Your task to perform on an android device: change timer sound Image 0: 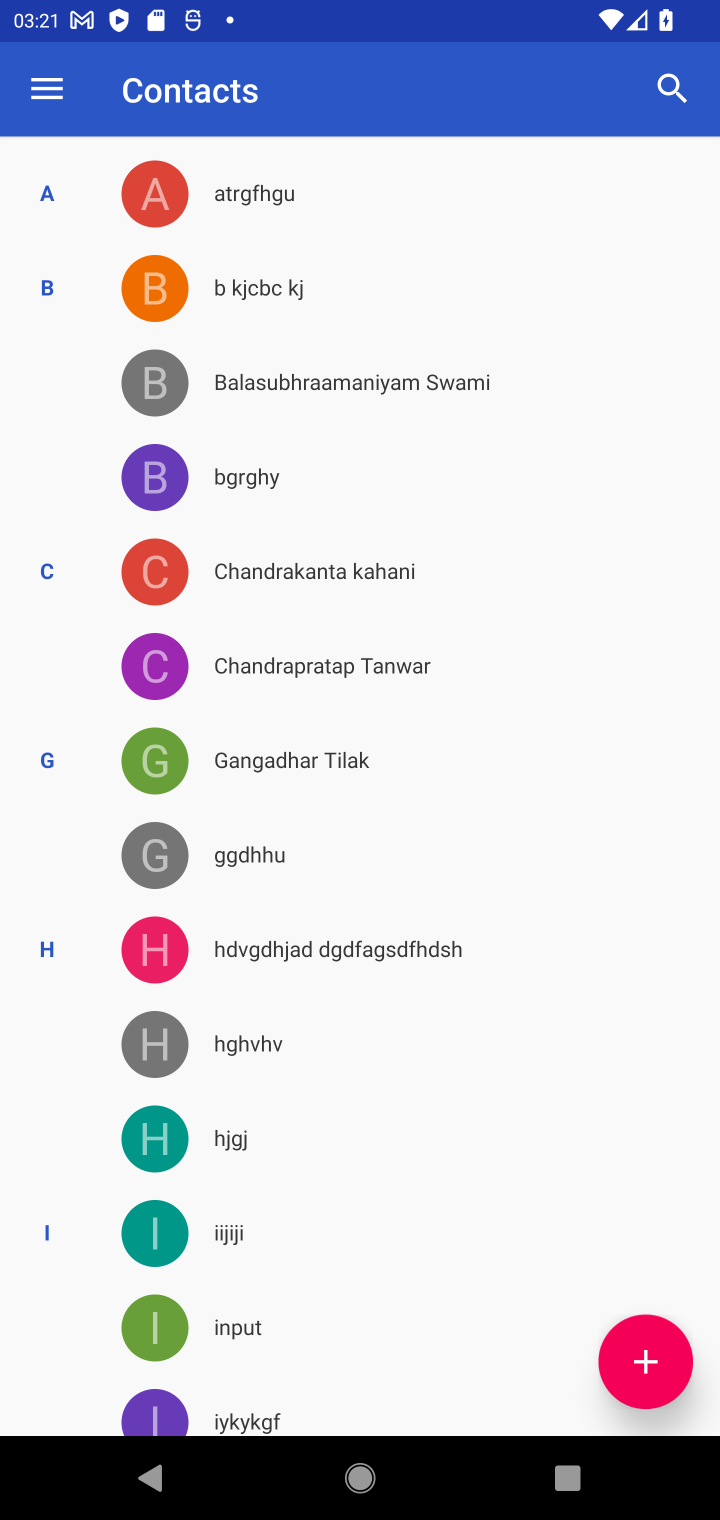
Step 0: press home button
Your task to perform on an android device: change timer sound Image 1: 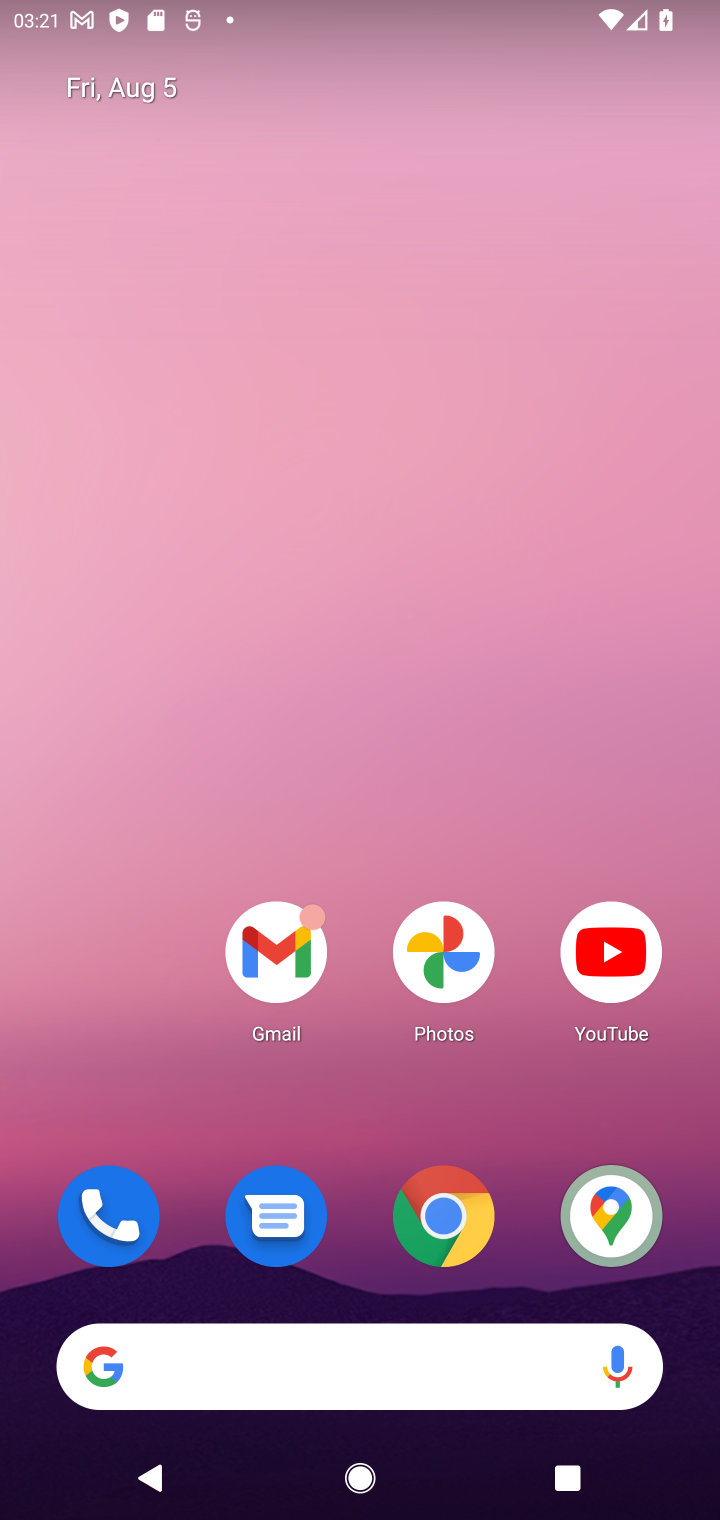
Step 1: drag from (375, 1046) to (627, 127)
Your task to perform on an android device: change timer sound Image 2: 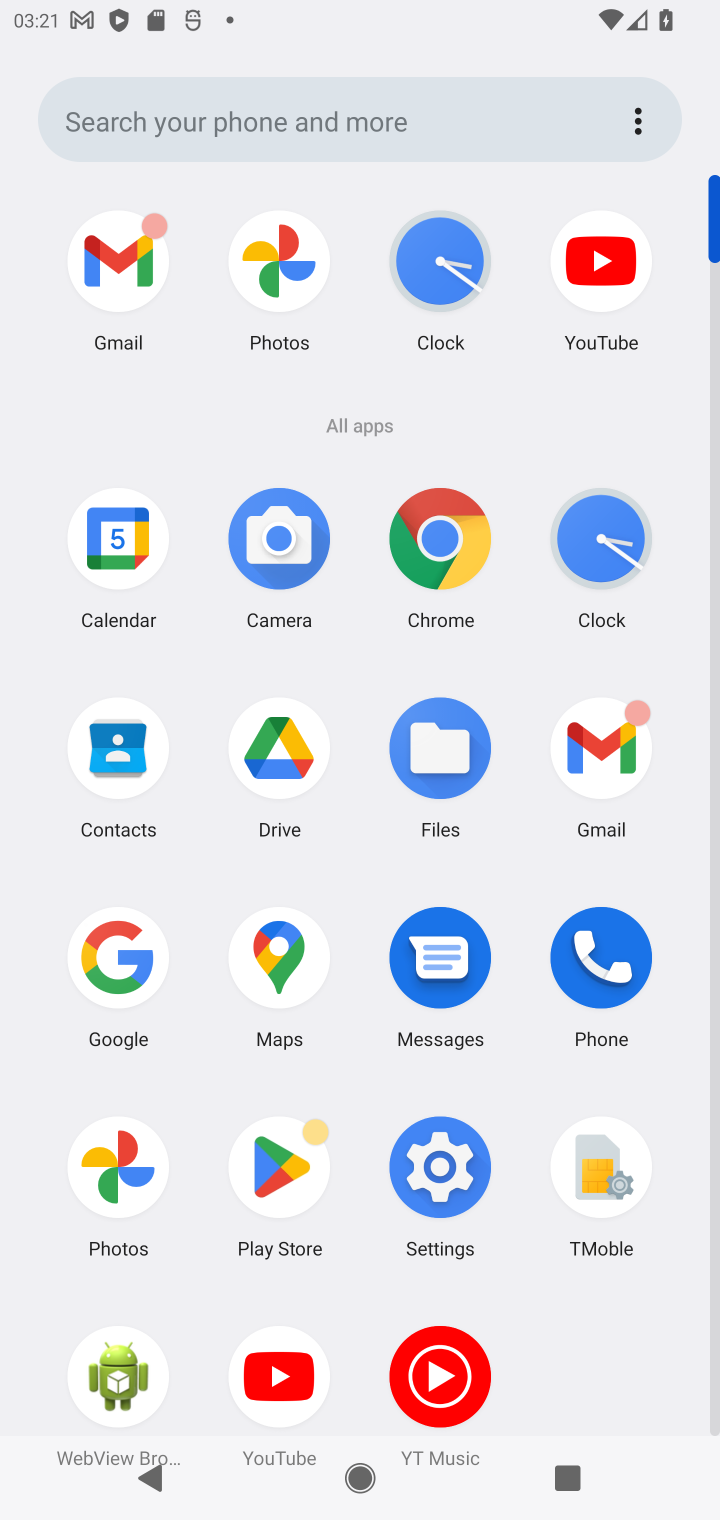
Step 2: click (625, 544)
Your task to perform on an android device: change timer sound Image 3: 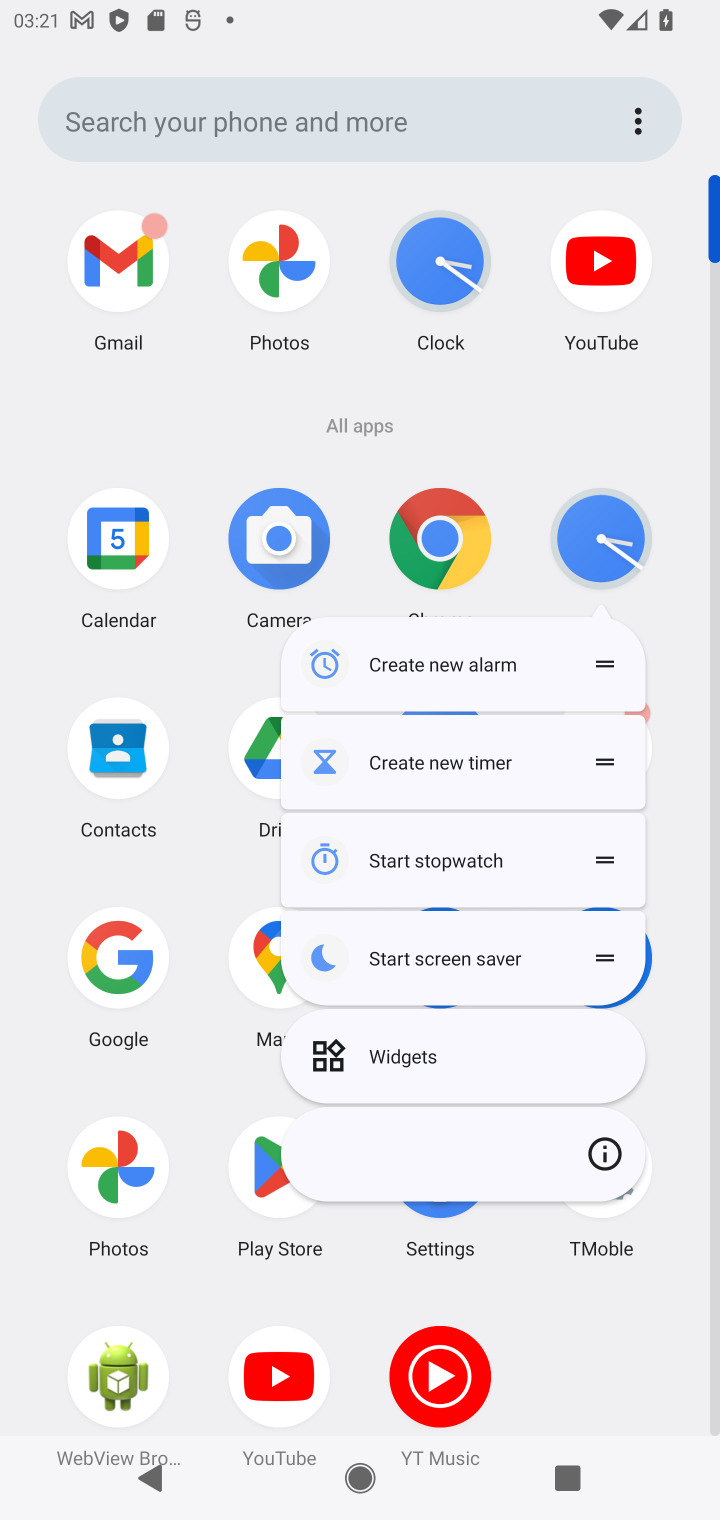
Step 3: click (625, 544)
Your task to perform on an android device: change timer sound Image 4: 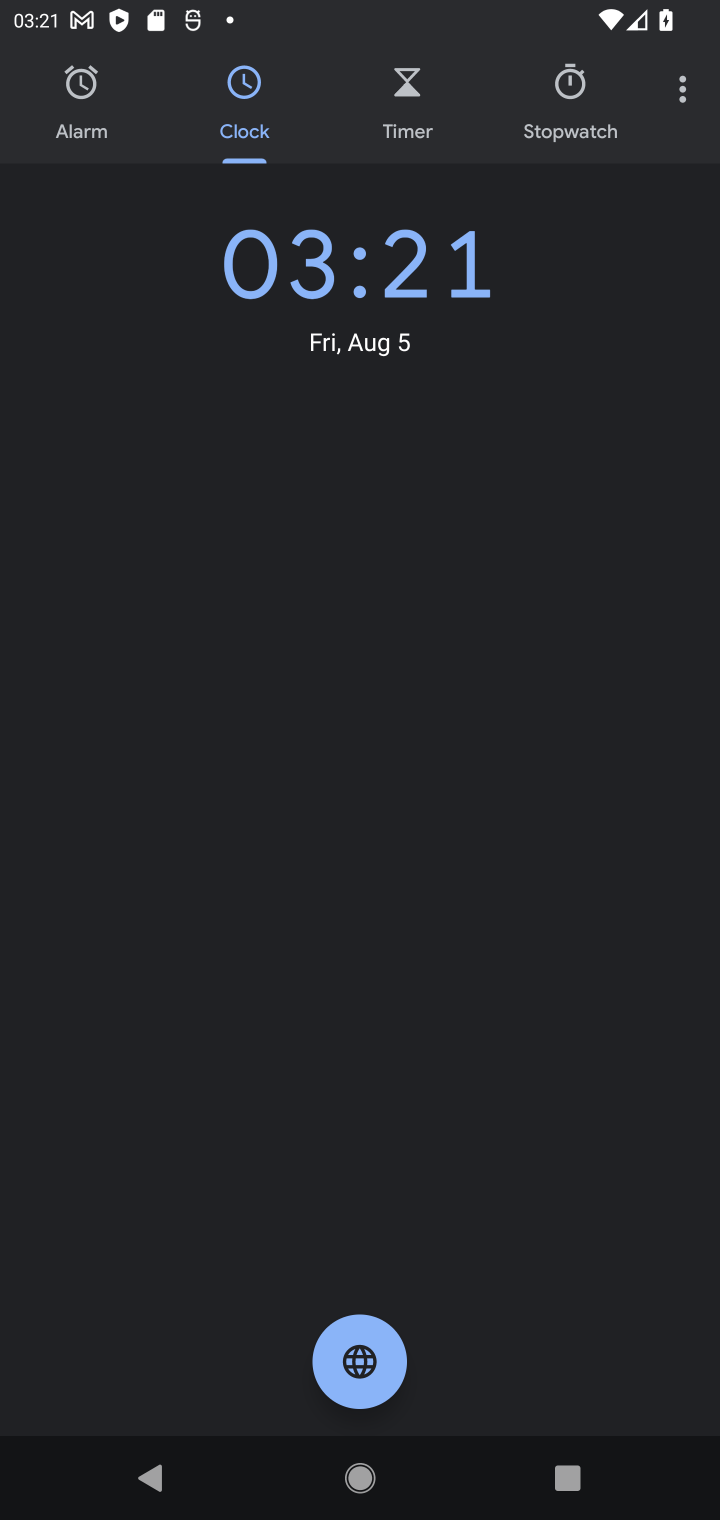
Step 4: click (676, 86)
Your task to perform on an android device: change timer sound Image 5: 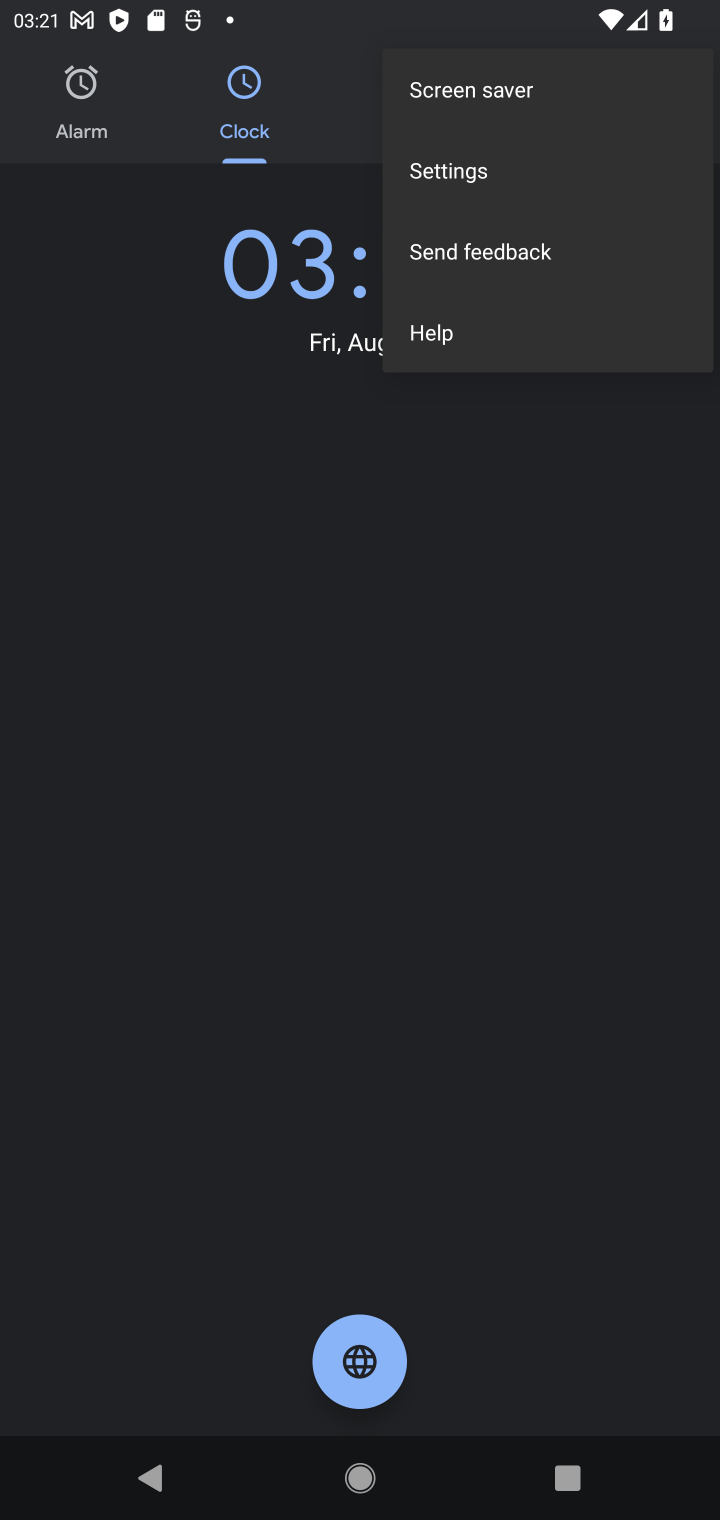
Step 5: click (509, 192)
Your task to perform on an android device: change timer sound Image 6: 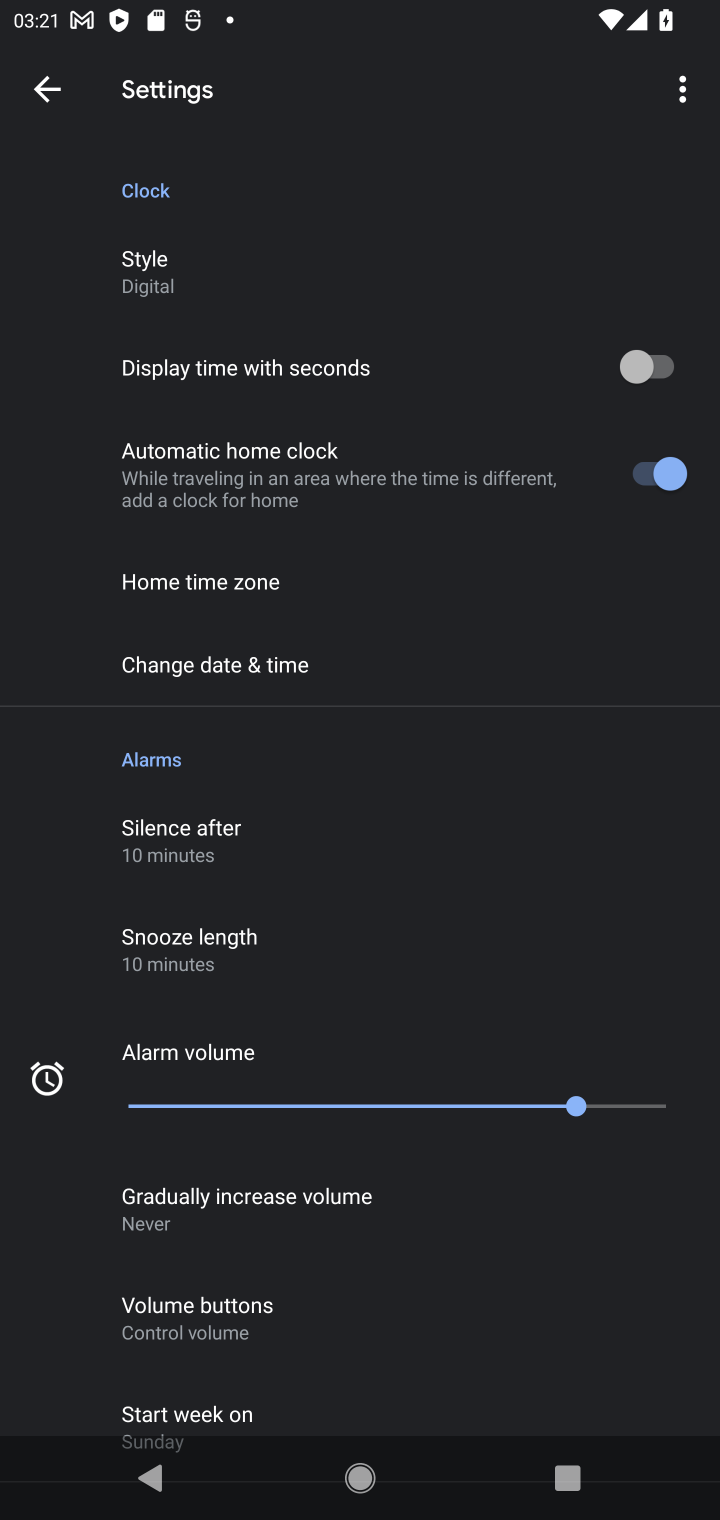
Step 6: drag from (239, 1321) to (347, 138)
Your task to perform on an android device: change timer sound Image 7: 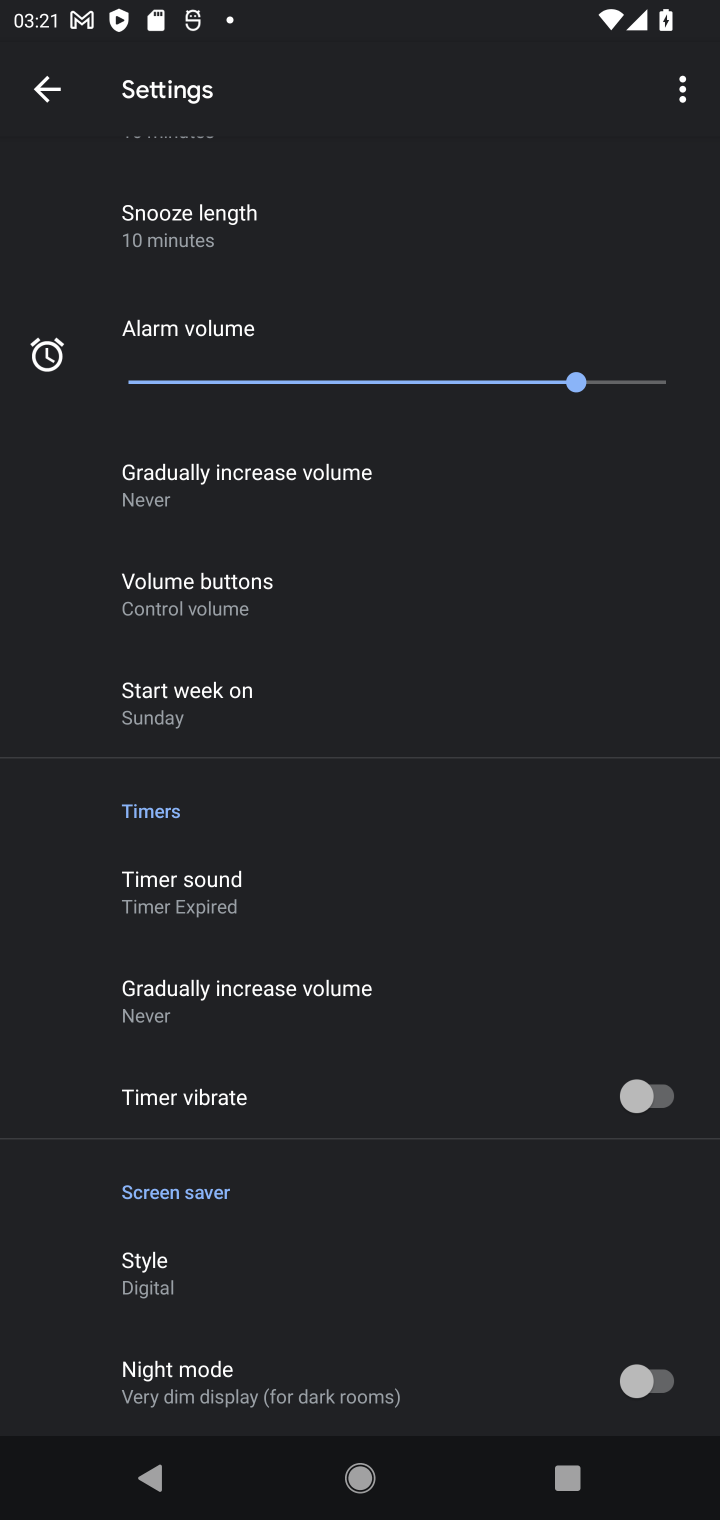
Step 7: click (238, 906)
Your task to perform on an android device: change timer sound Image 8: 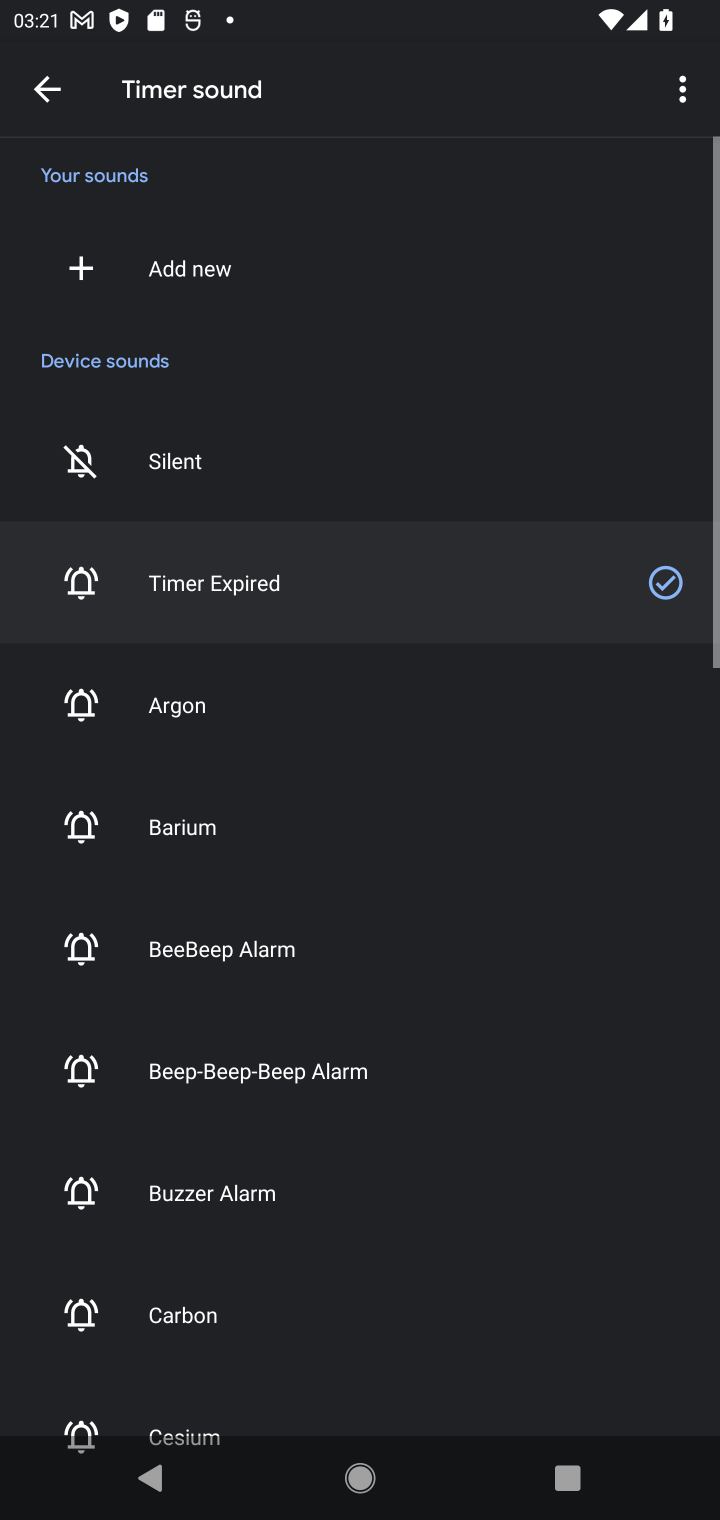
Step 8: click (168, 963)
Your task to perform on an android device: change timer sound Image 9: 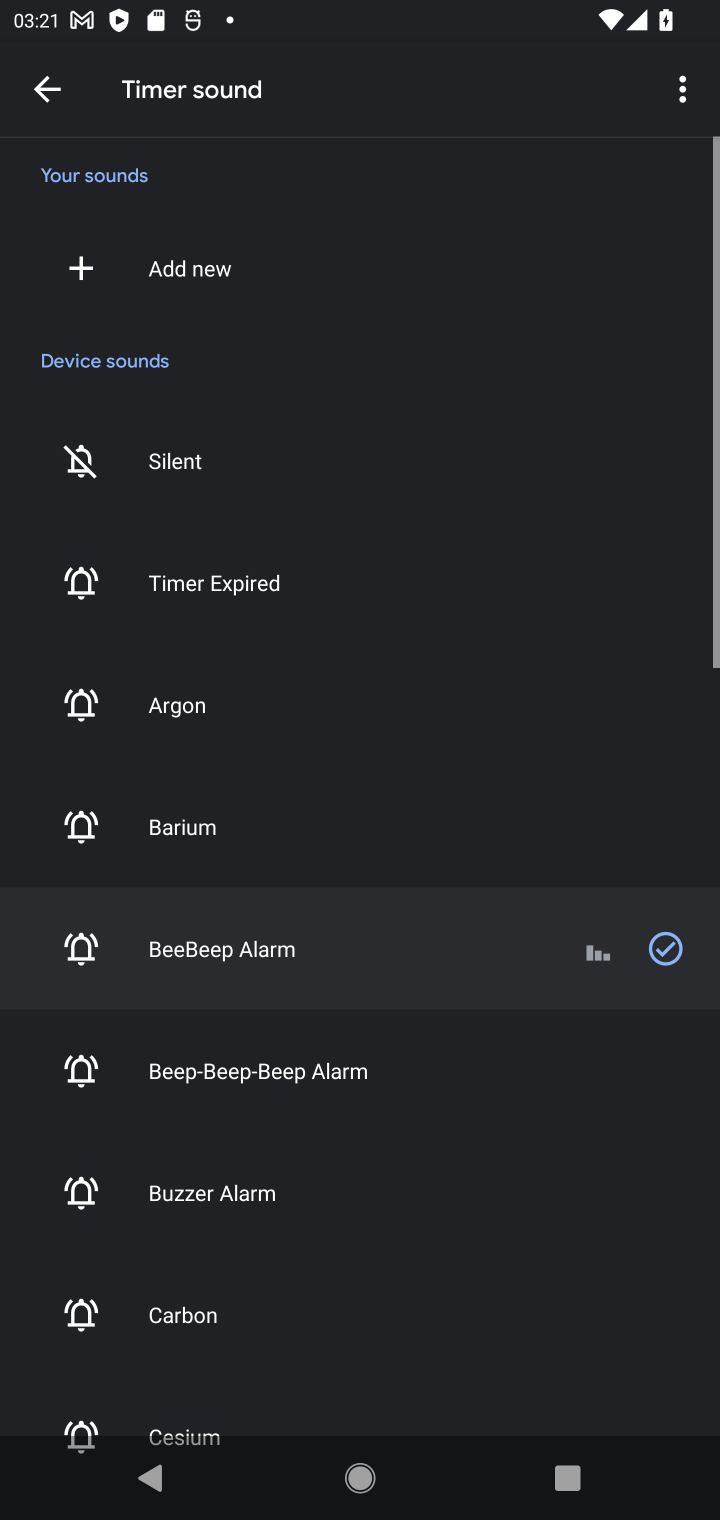
Step 9: task complete